Your task to perform on an android device: toggle improve location accuracy Image 0: 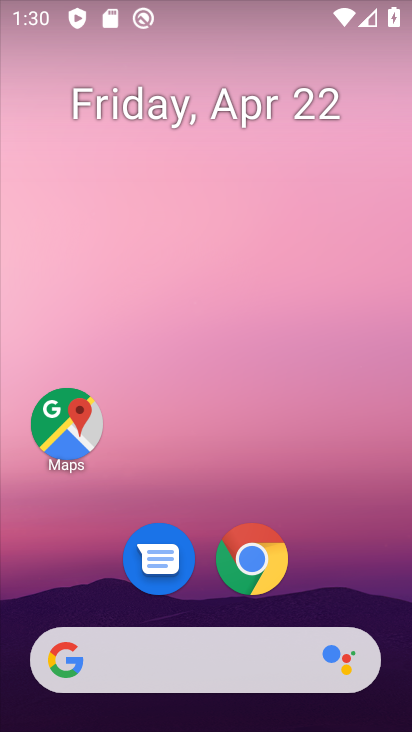
Step 0: drag from (365, 582) to (347, 13)
Your task to perform on an android device: toggle improve location accuracy Image 1: 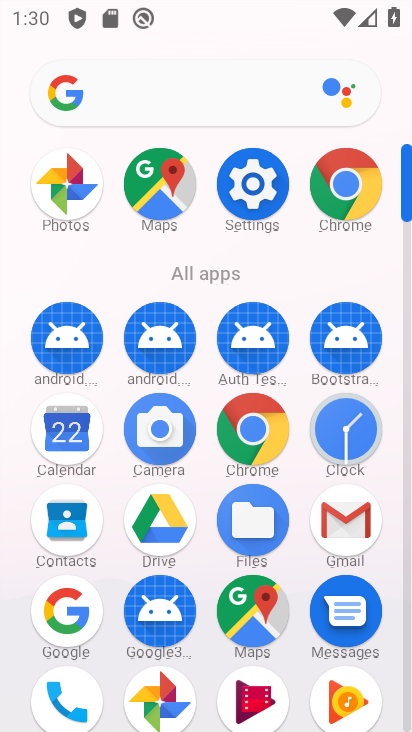
Step 1: drag from (406, 177) to (411, 517)
Your task to perform on an android device: toggle improve location accuracy Image 2: 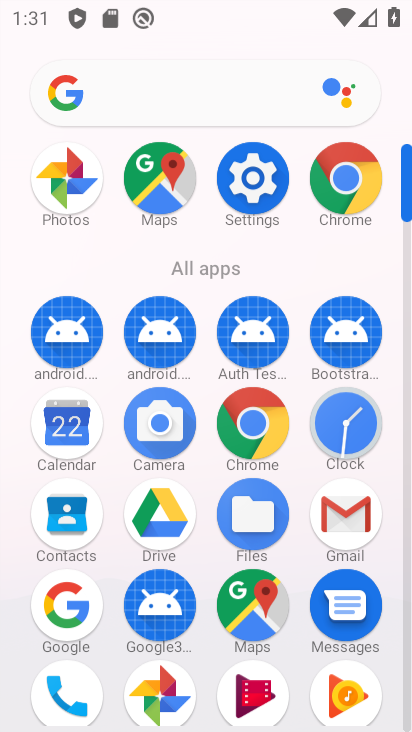
Step 2: click (407, 556)
Your task to perform on an android device: toggle improve location accuracy Image 3: 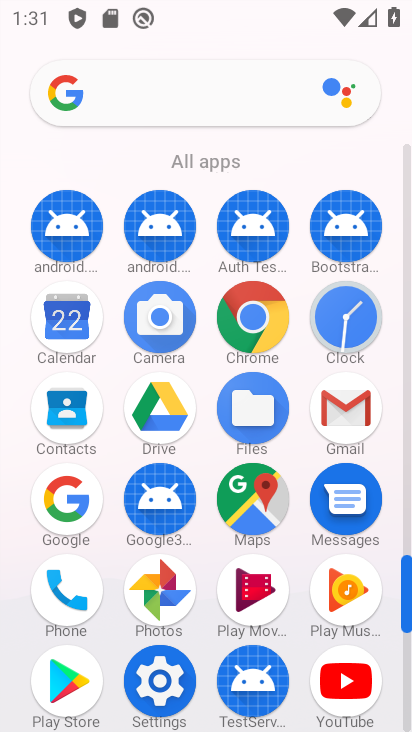
Step 3: click (178, 670)
Your task to perform on an android device: toggle improve location accuracy Image 4: 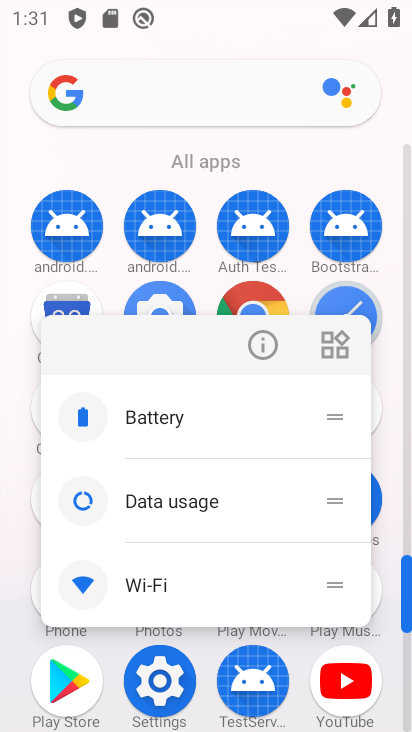
Step 4: click (162, 679)
Your task to perform on an android device: toggle improve location accuracy Image 5: 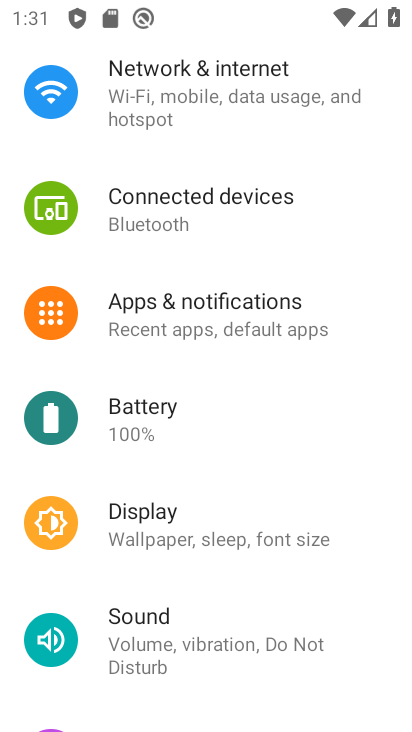
Step 5: drag from (223, 573) to (292, 199)
Your task to perform on an android device: toggle improve location accuracy Image 6: 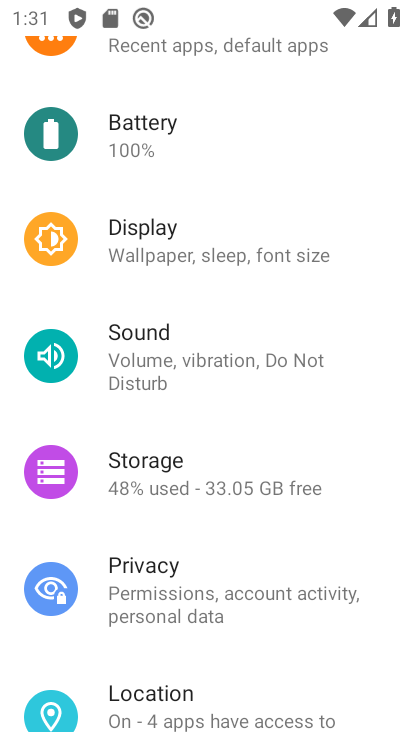
Step 6: click (221, 703)
Your task to perform on an android device: toggle improve location accuracy Image 7: 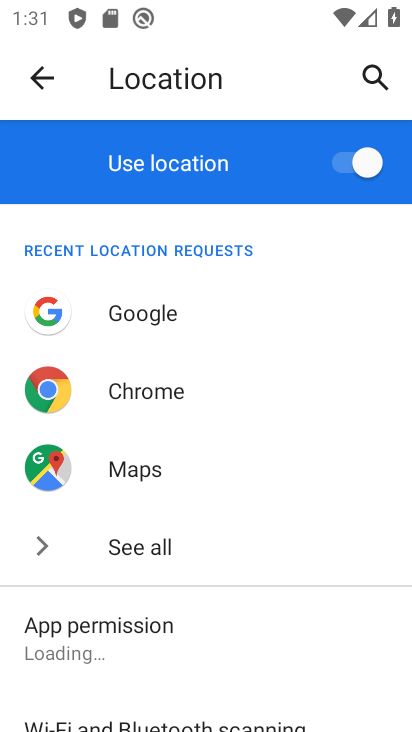
Step 7: drag from (183, 560) to (222, 222)
Your task to perform on an android device: toggle improve location accuracy Image 8: 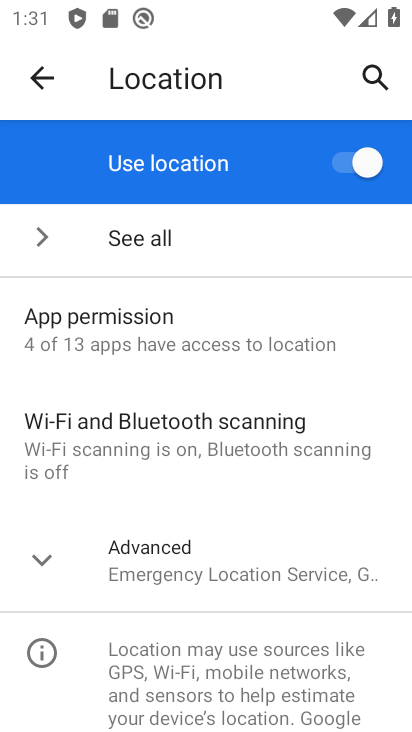
Step 8: drag from (144, 577) to (212, 244)
Your task to perform on an android device: toggle improve location accuracy Image 9: 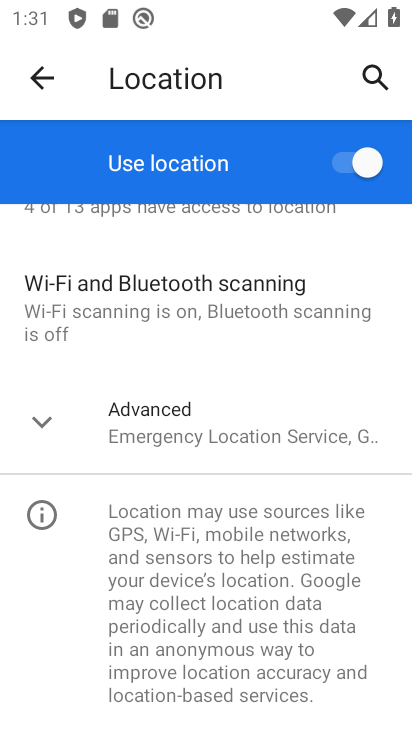
Step 9: click (209, 435)
Your task to perform on an android device: toggle improve location accuracy Image 10: 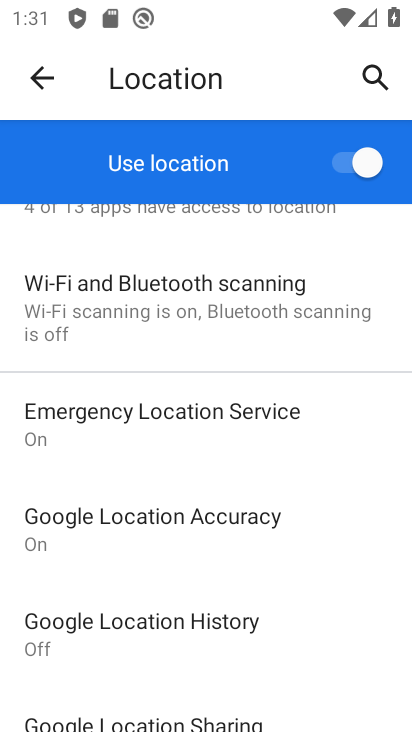
Step 10: click (219, 522)
Your task to perform on an android device: toggle improve location accuracy Image 11: 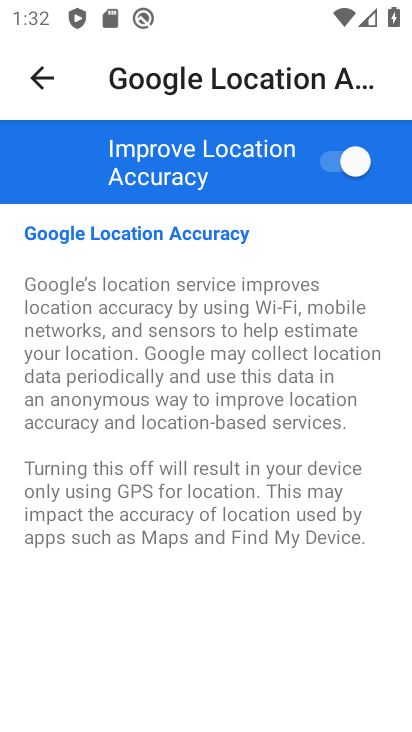
Step 11: click (359, 153)
Your task to perform on an android device: toggle improve location accuracy Image 12: 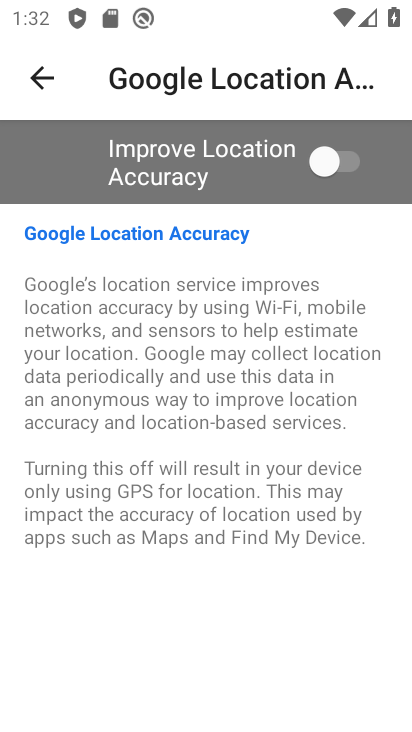
Step 12: task complete